Your task to perform on an android device: Clear all items from cart on ebay. Add razer blade to the cart on ebay Image 0: 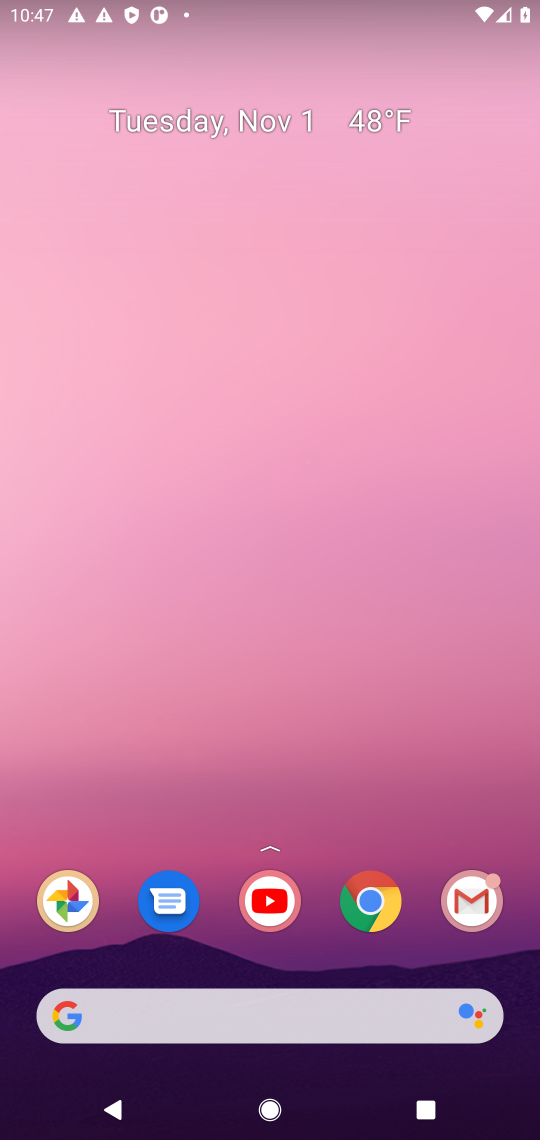
Step 0: drag from (327, 961) to (353, 136)
Your task to perform on an android device: Clear all items from cart on ebay. Add razer blade to the cart on ebay Image 1: 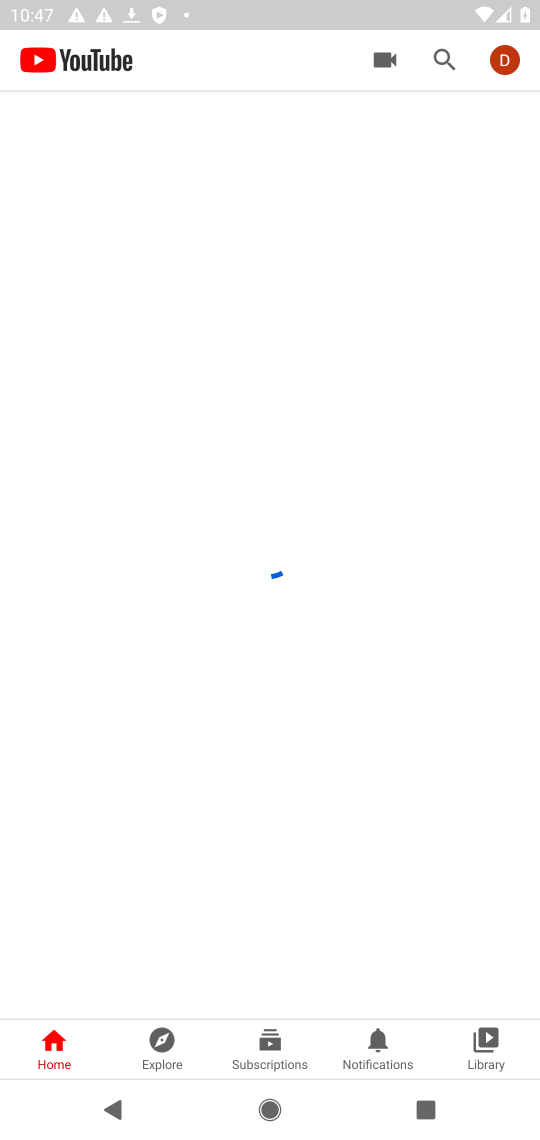
Step 1: press home button
Your task to perform on an android device: Clear all items from cart on ebay. Add razer blade to the cart on ebay Image 2: 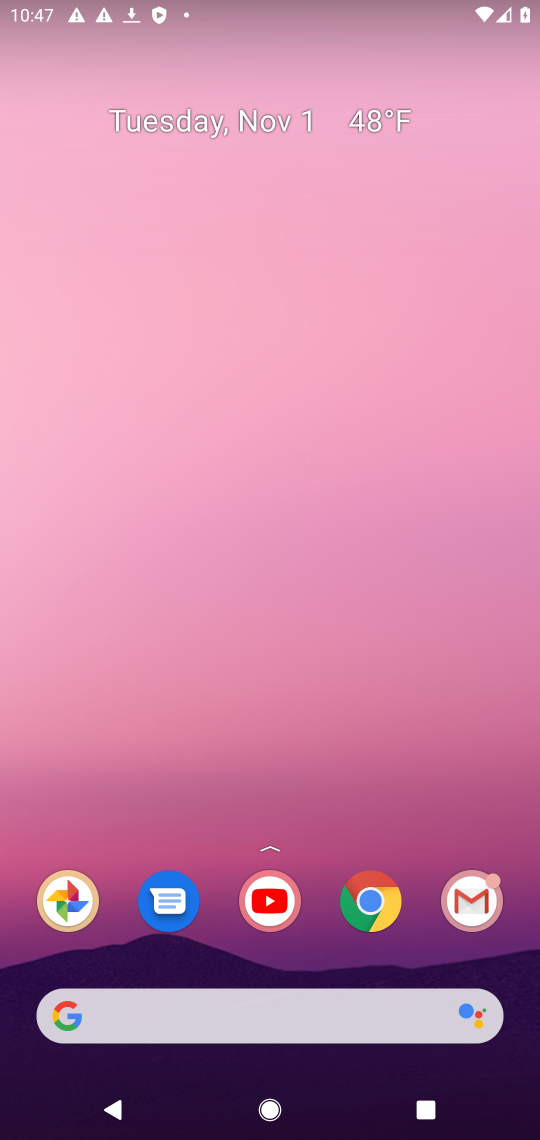
Step 2: drag from (313, 932) to (317, 171)
Your task to perform on an android device: Clear all items from cart on ebay. Add razer blade to the cart on ebay Image 3: 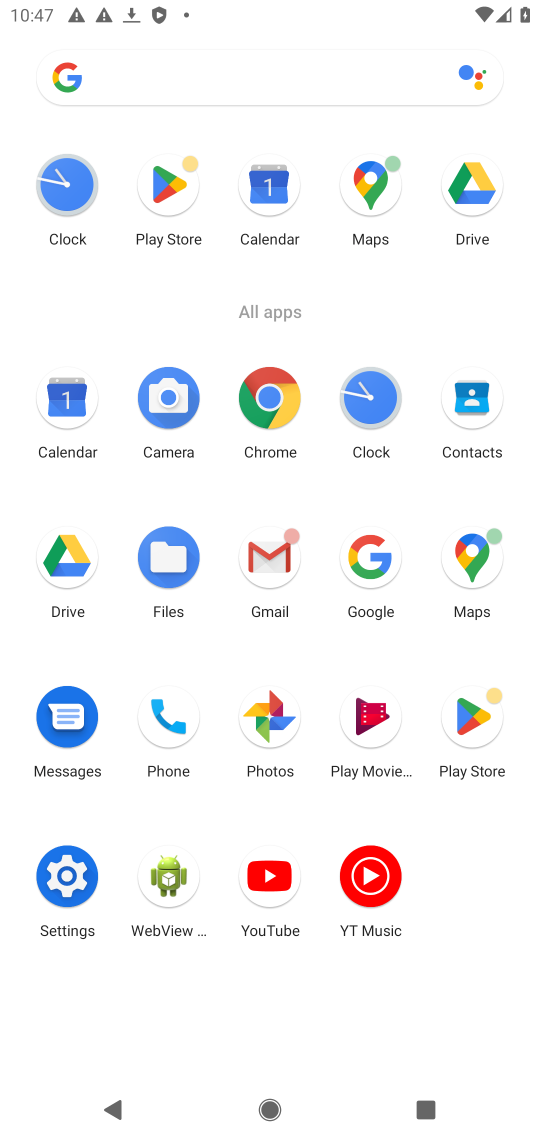
Step 3: click (278, 397)
Your task to perform on an android device: Clear all items from cart on ebay. Add razer blade to the cart on ebay Image 4: 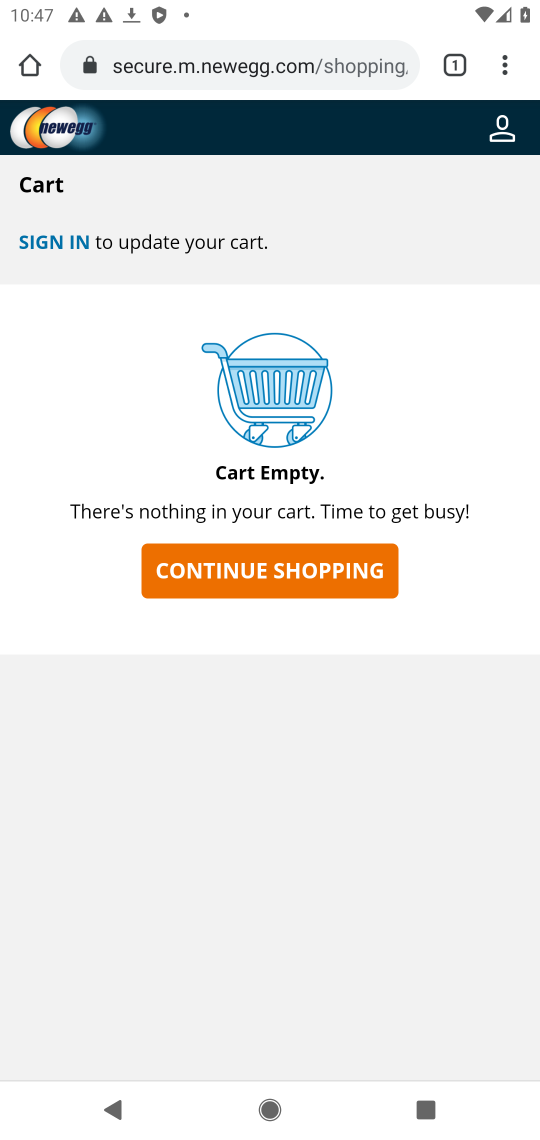
Step 4: click (288, 55)
Your task to perform on an android device: Clear all items from cart on ebay. Add razer blade to the cart on ebay Image 5: 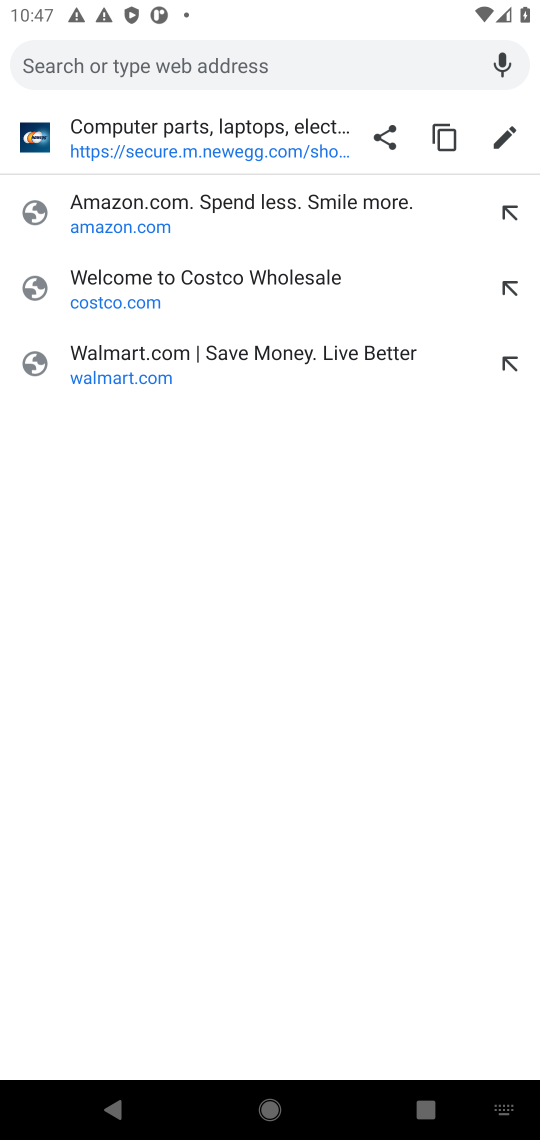
Step 5: type "ebay.com"
Your task to perform on an android device: Clear all items from cart on ebay. Add razer blade to the cart on ebay Image 6: 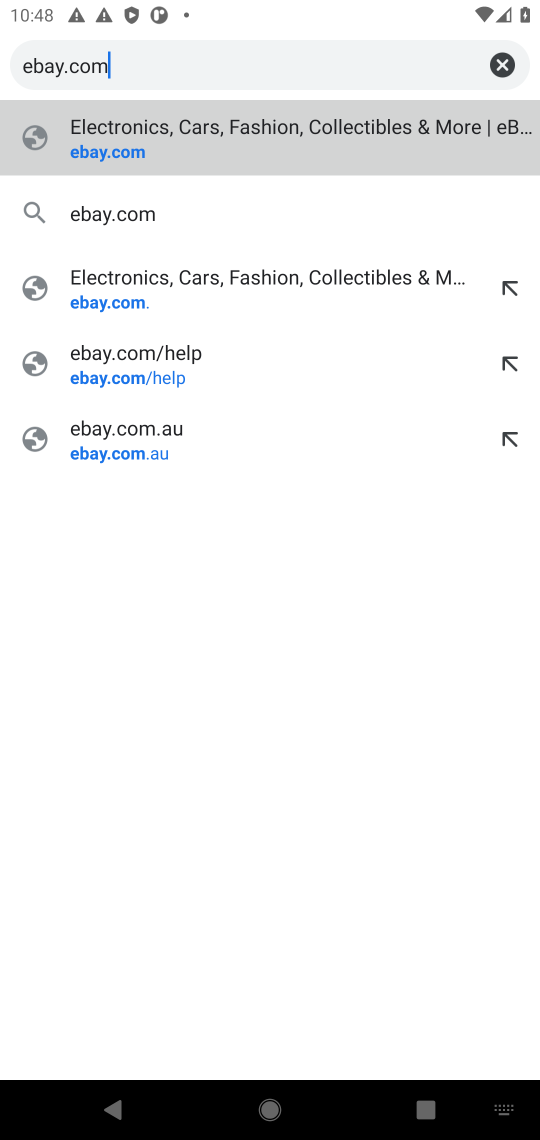
Step 6: press enter
Your task to perform on an android device: Clear all items from cart on ebay. Add razer blade to the cart on ebay Image 7: 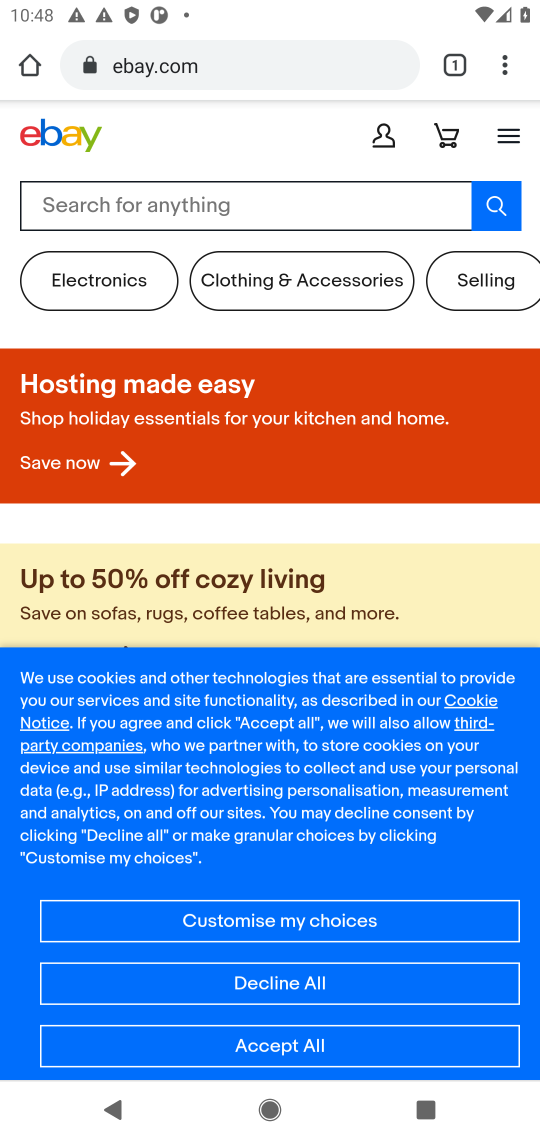
Step 7: click (439, 134)
Your task to perform on an android device: Clear all items from cart on ebay. Add razer blade to the cart on ebay Image 8: 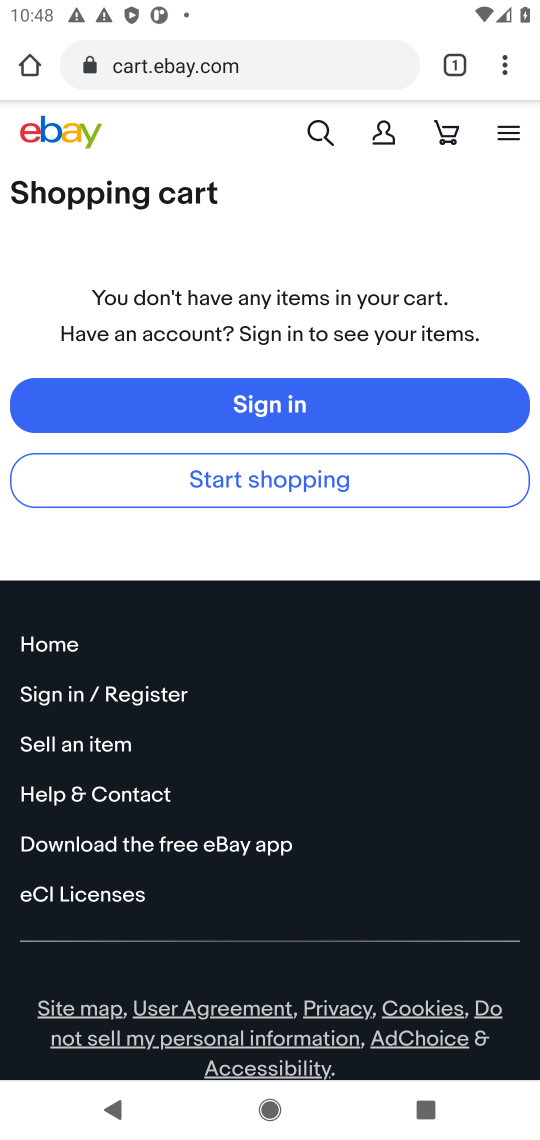
Step 8: click (326, 133)
Your task to perform on an android device: Clear all items from cart on ebay. Add razer blade to the cart on ebay Image 9: 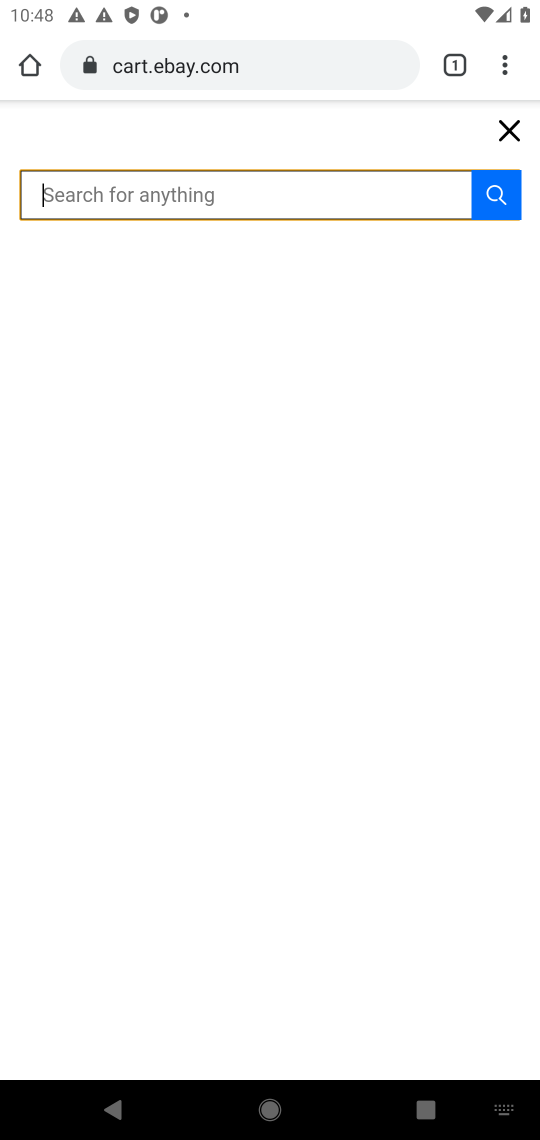
Step 9: type "razer blade"
Your task to perform on an android device: Clear all items from cart on ebay. Add razer blade to the cart on ebay Image 10: 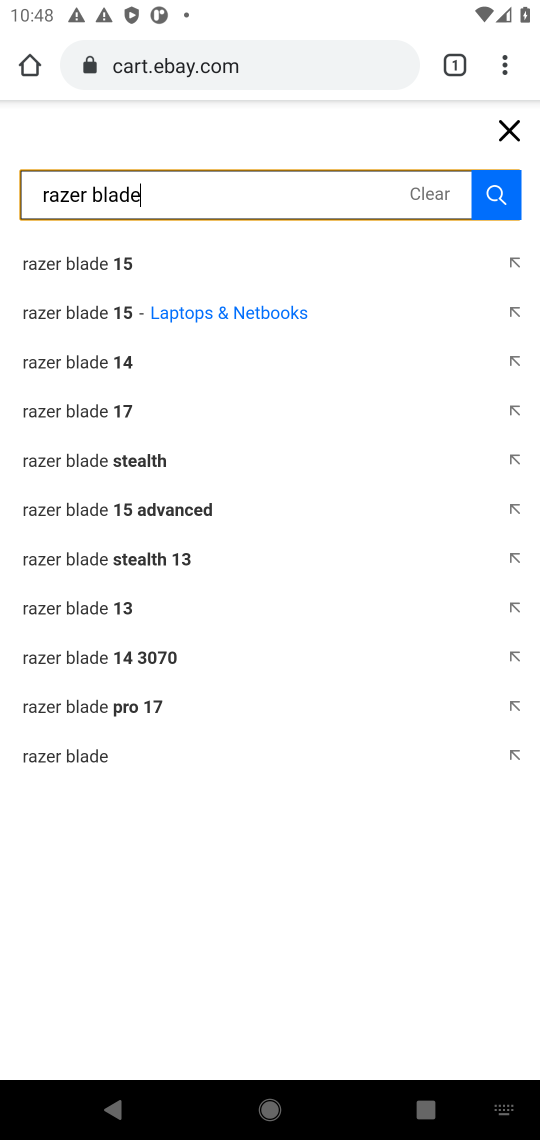
Step 10: click (503, 187)
Your task to perform on an android device: Clear all items from cart on ebay. Add razer blade to the cart on ebay Image 11: 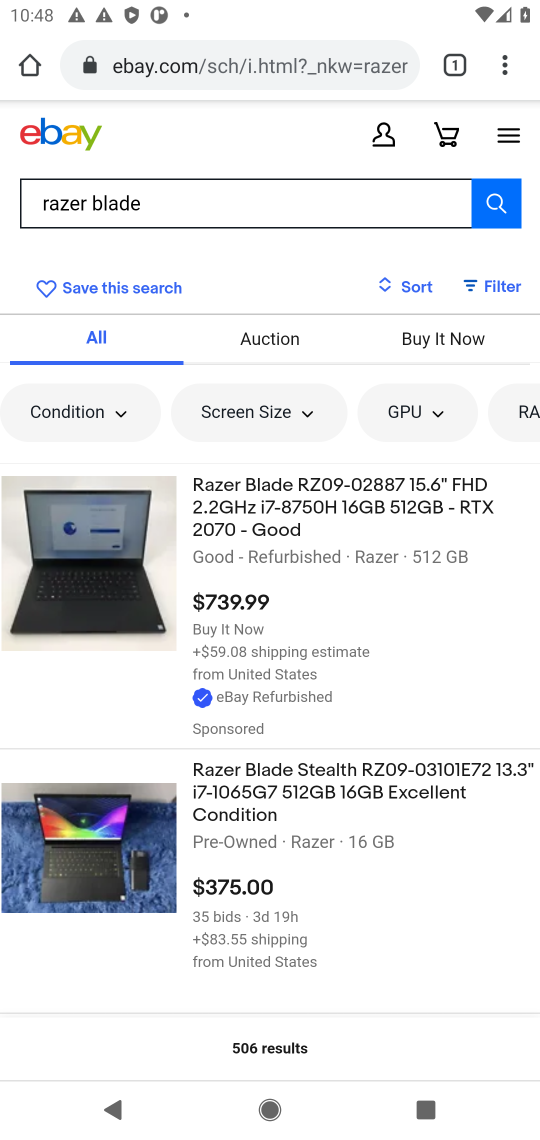
Step 11: click (244, 525)
Your task to perform on an android device: Clear all items from cart on ebay. Add razer blade to the cart on ebay Image 12: 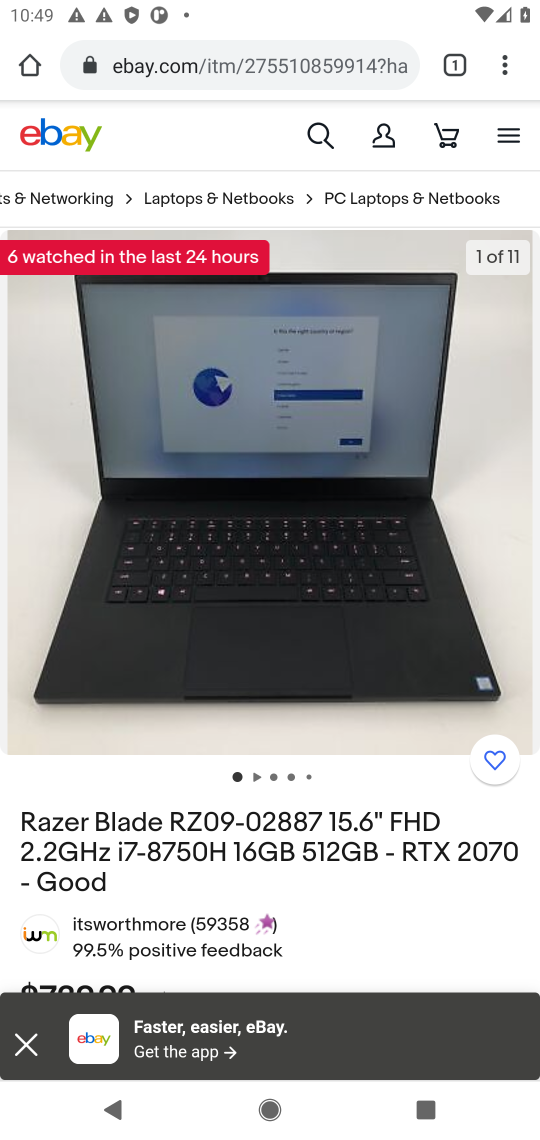
Step 12: drag from (200, 790) to (241, 216)
Your task to perform on an android device: Clear all items from cart on ebay. Add razer blade to the cart on ebay Image 13: 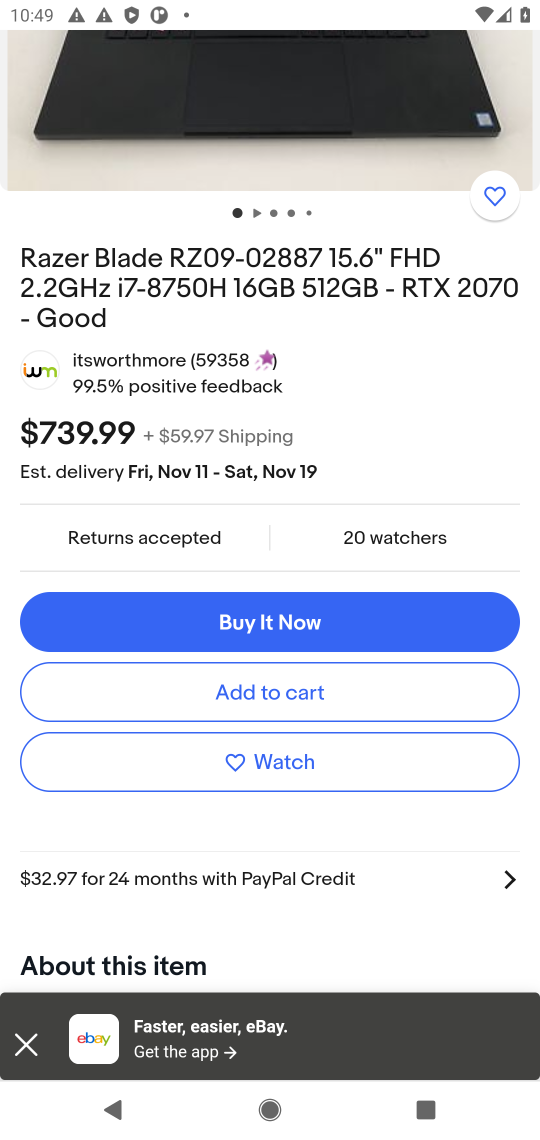
Step 13: click (315, 688)
Your task to perform on an android device: Clear all items from cart on ebay. Add razer blade to the cart on ebay Image 14: 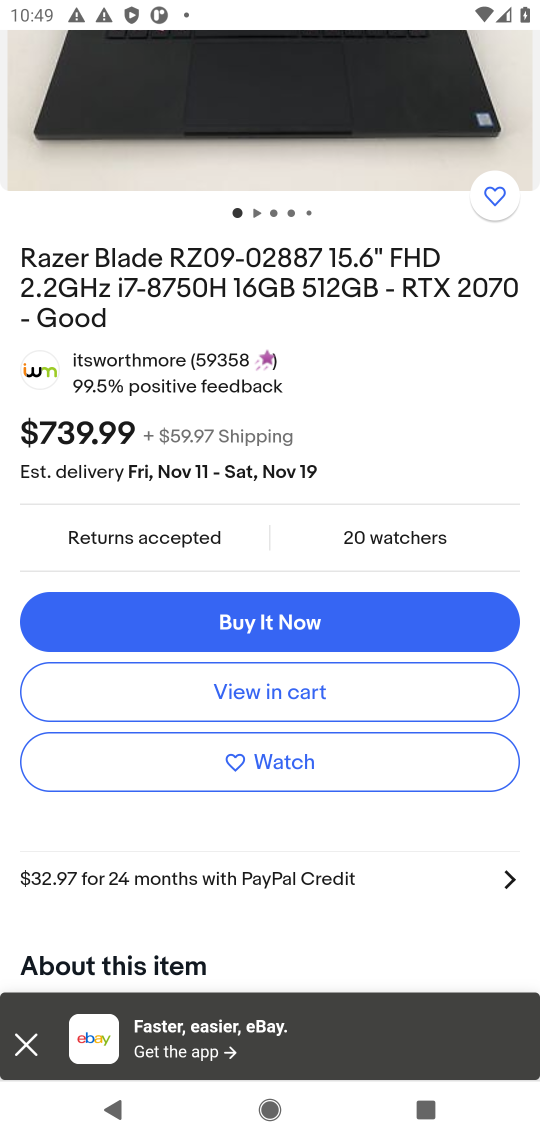
Step 14: task complete